Your task to perform on an android device: Check the news Image 0: 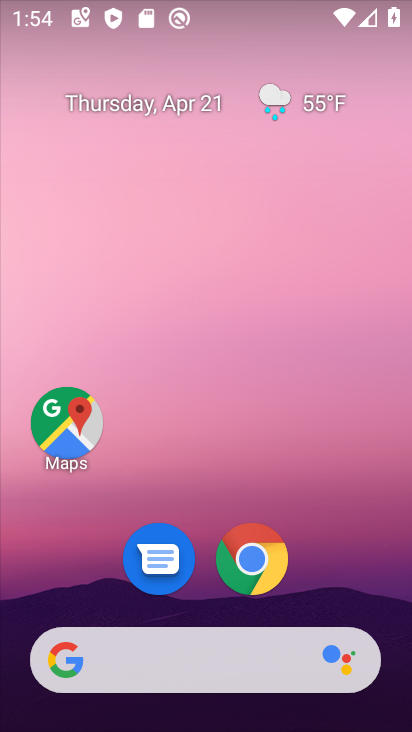
Step 0: drag from (218, 714) to (185, 305)
Your task to perform on an android device: Check the news Image 1: 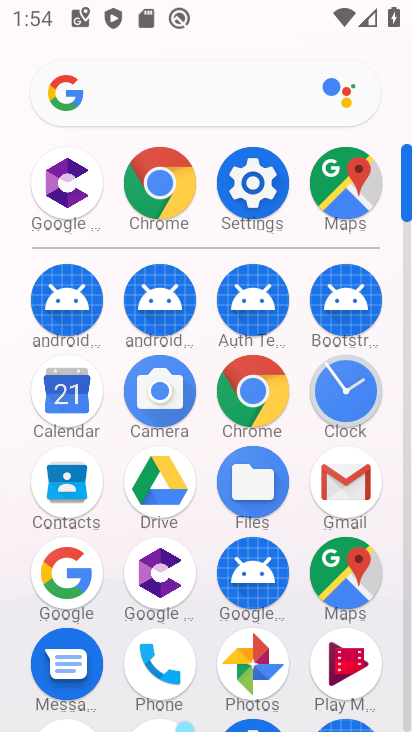
Step 1: drag from (176, 626) to (248, 248)
Your task to perform on an android device: Check the news Image 2: 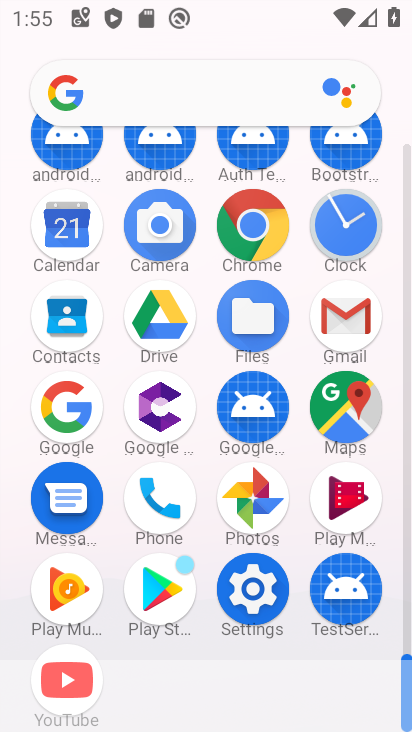
Step 2: type "new"
Your task to perform on an android device: Check the news Image 3: 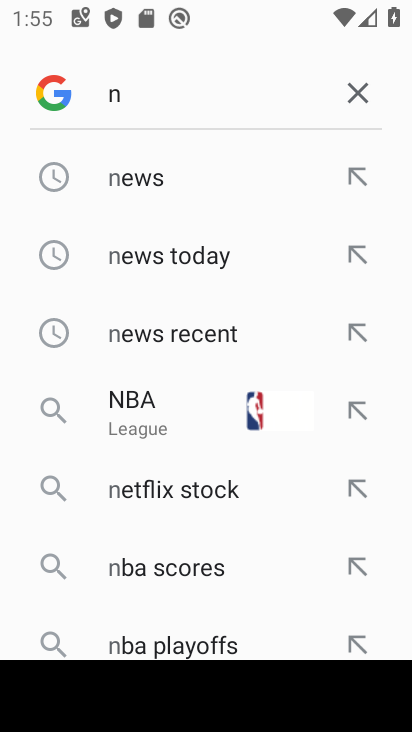
Step 3: click (148, 169)
Your task to perform on an android device: Check the news Image 4: 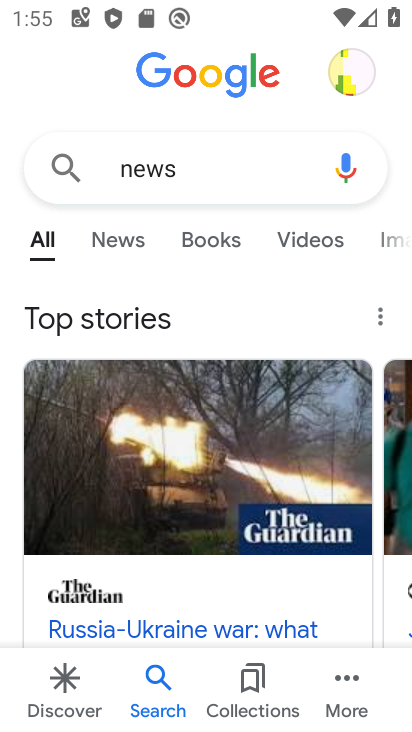
Step 4: task complete